Your task to perform on an android device: Add "macbook pro 13 inch" to the cart on newegg Image 0: 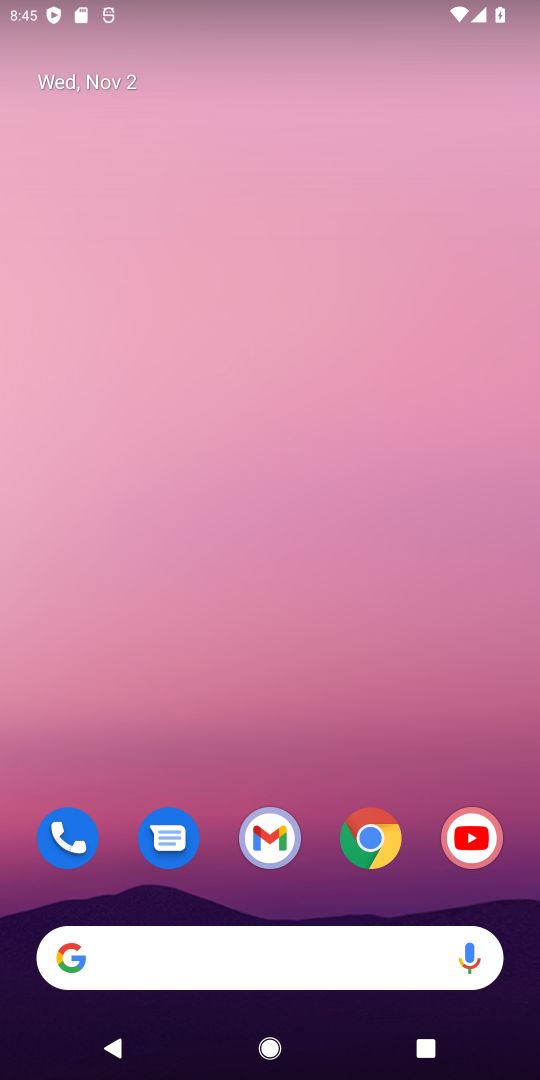
Step 0: click (380, 861)
Your task to perform on an android device: Add "macbook pro 13 inch" to the cart on newegg Image 1: 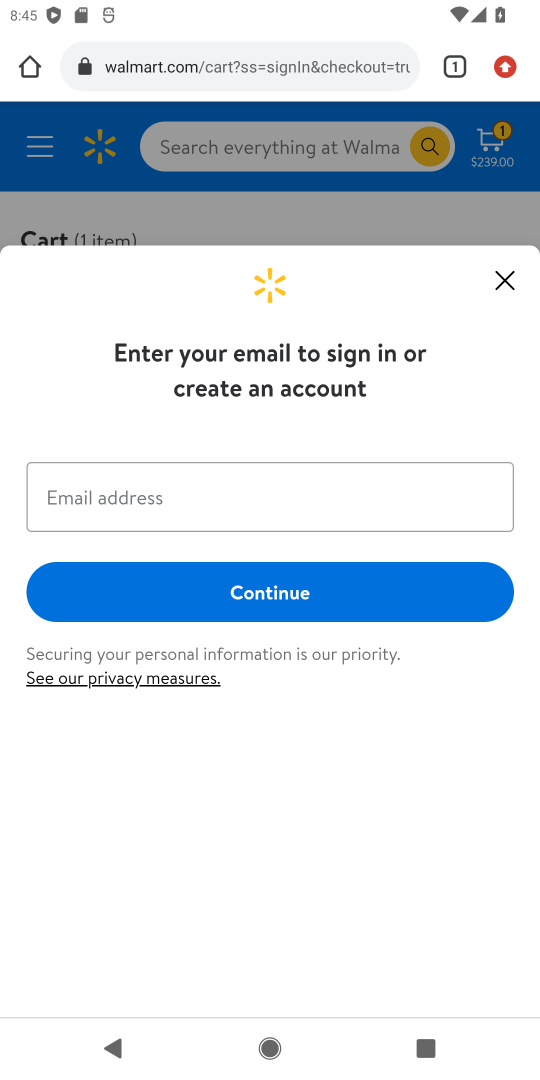
Step 1: click (288, 72)
Your task to perform on an android device: Add "macbook pro 13 inch" to the cart on newegg Image 2: 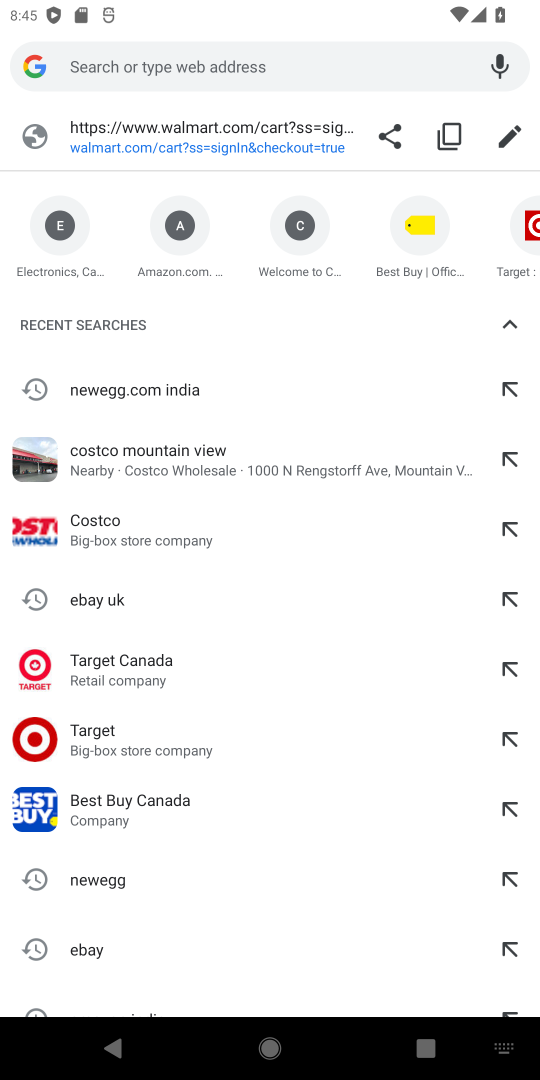
Step 2: type "newegg"
Your task to perform on an android device: Add "macbook pro 13 inch" to the cart on newegg Image 3: 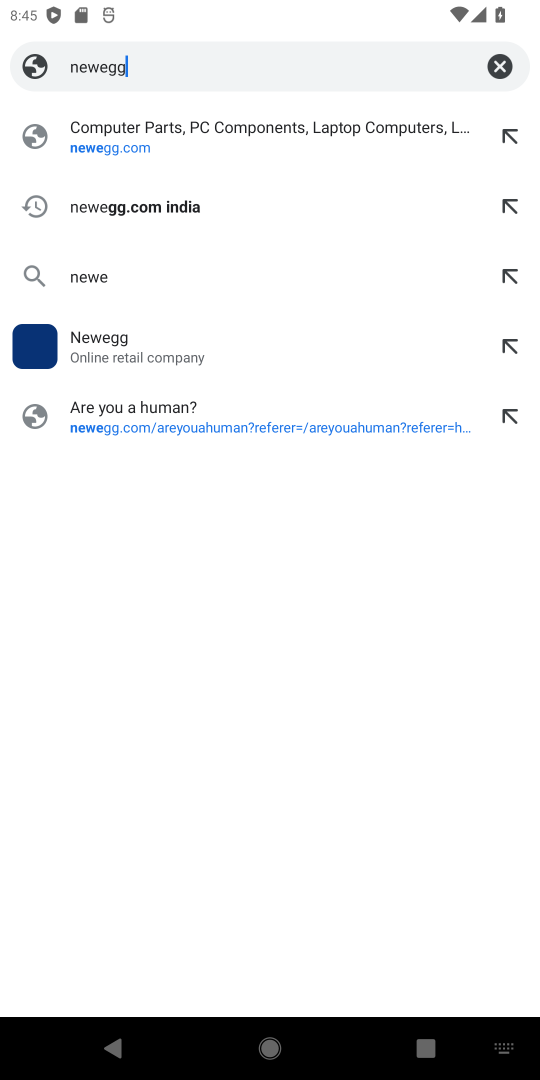
Step 3: type ""
Your task to perform on an android device: Add "macbook pro 13 inch" to the cart on newegg Image 4: 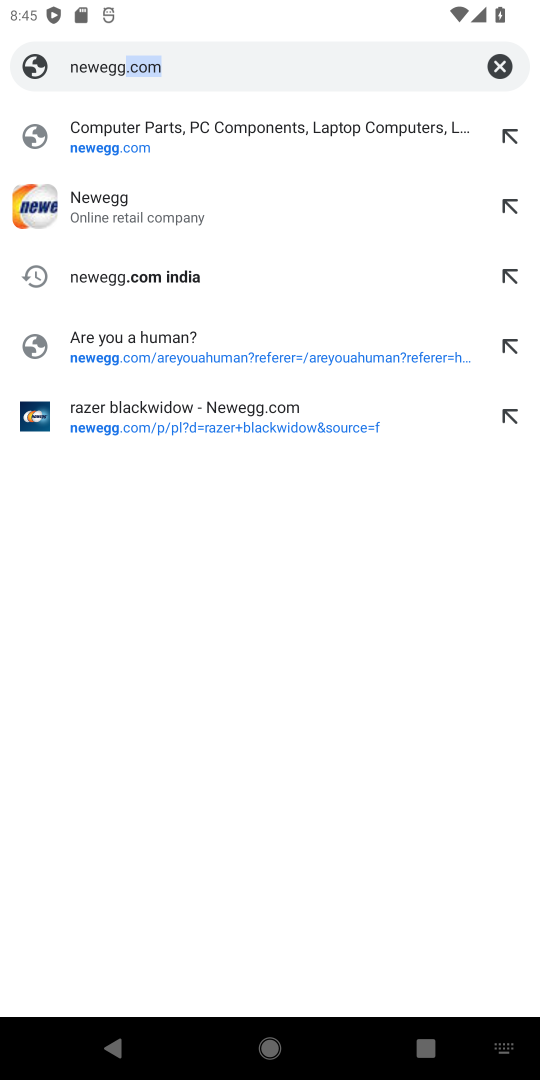
Step 4: press enter
Your task to perform on an android device: Add "macbook pro 13 inch" to the cart on newegg Image 5: 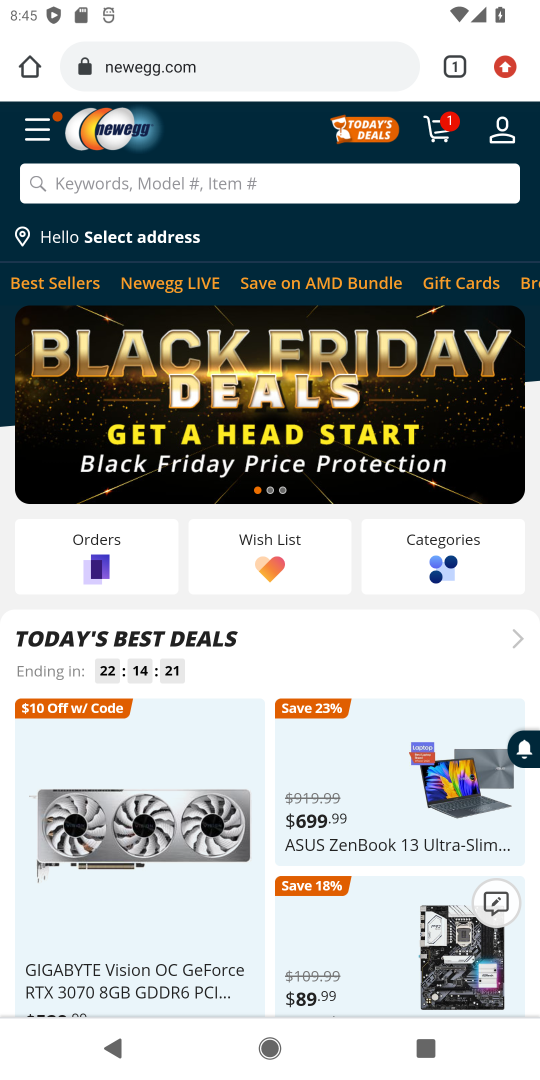
Step 5: click (439, 132)
Your task to perform on an android device: Add "macbook pro 13 inch" to the cart on newegg Image 6: 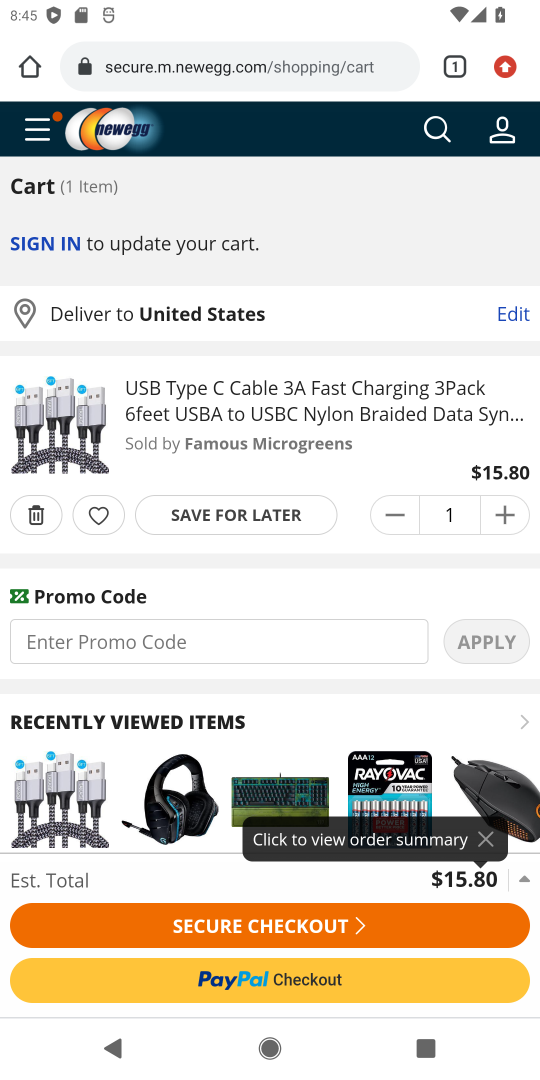
Step 6: click (434, 129)
Your task to perform on an android device: Add "macbook pro 13 inch" to the cart on newegg Image 7: 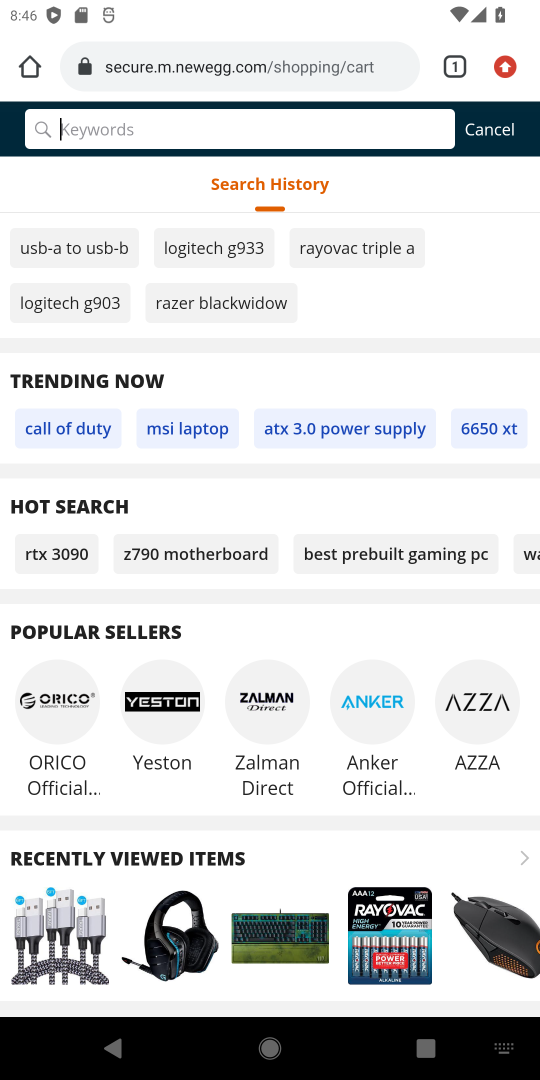
Step 7: type "macbook pro 13 inch"
Your task to perform on an android device: Add "macbook pro 13 inch" to the cart on newegg Image 8: 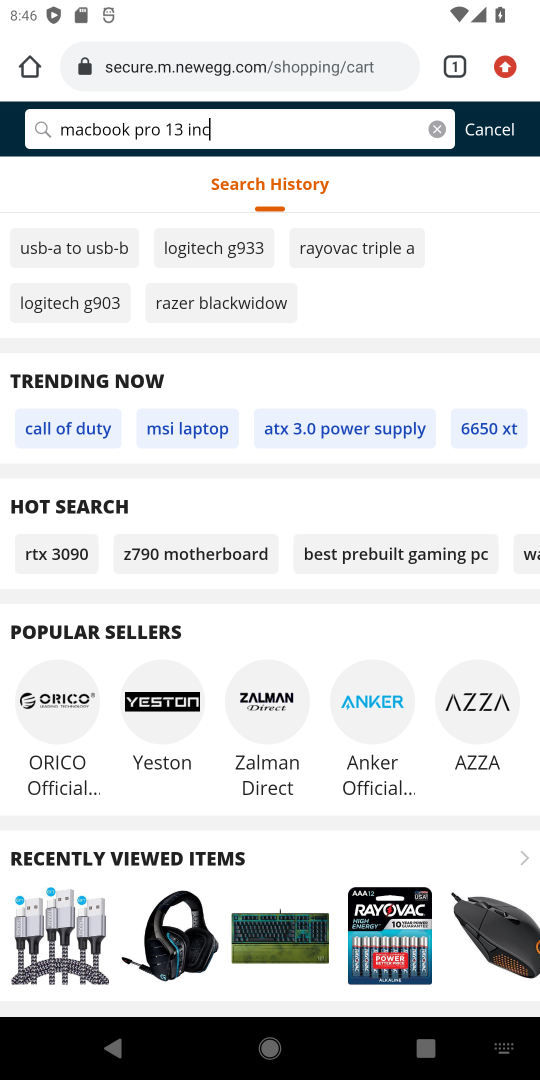
Step 8: type ""
Your task to perform on an android device: Add "macbook pro 13 inch" to the cart on newegg Image 9: 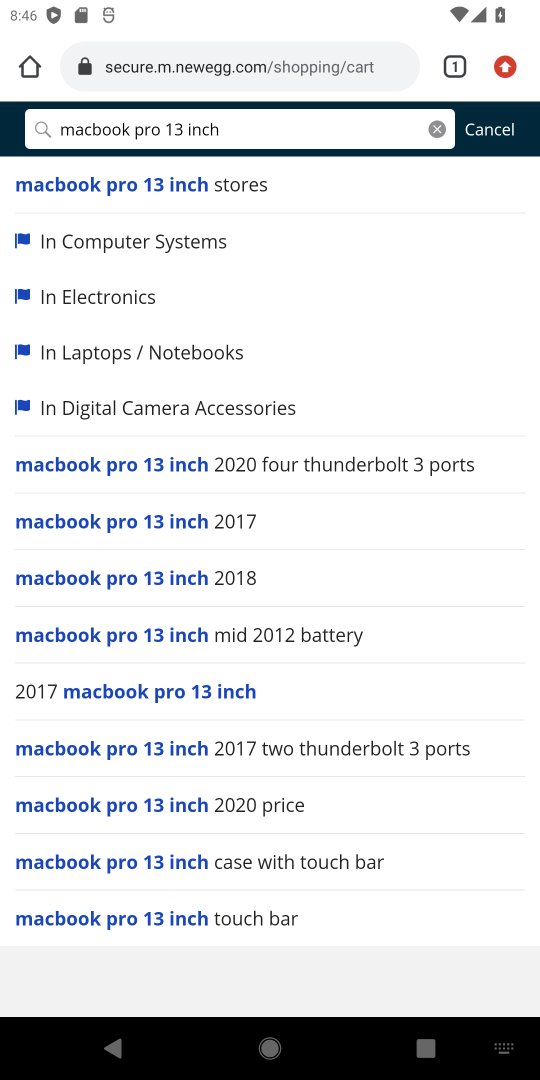
Step 9: press enter
Your task to perform on an android device: Add "macbook pro 13 inch" to the cart on newegg Image 10: 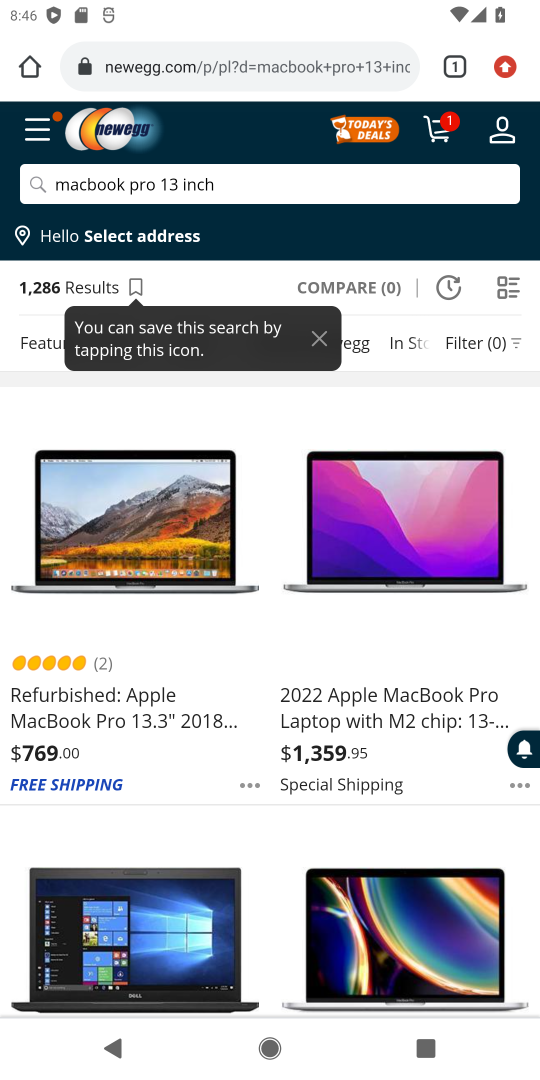
Step 10: click (181, 686)
Your task to perform on an android device: Add "macbook pro 13 inch" to the cart on newegg Image 11: 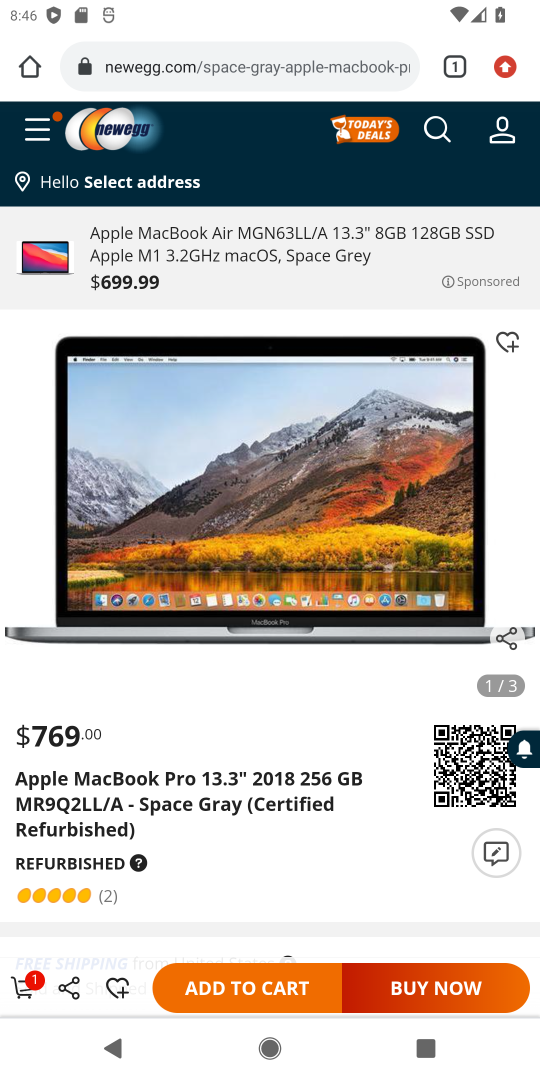
Step 11: click (181, 979)
Your task to perform on an android device: Add "macbook pro 13 inch" to the cart on newegg Image 12: 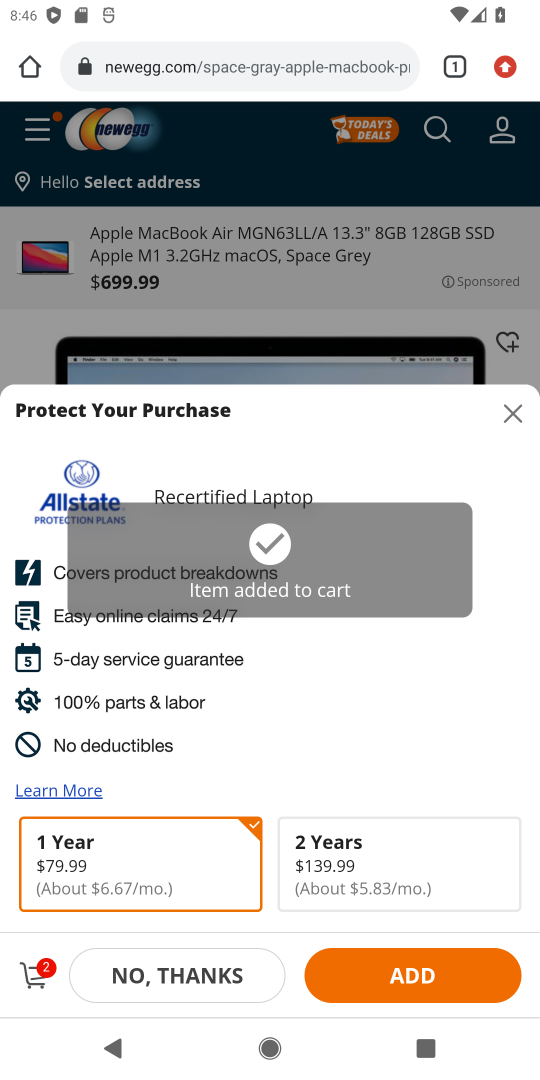
Step 12: click (30, 993)
Your task to perform on an android device: Add "macbook pro 13 inch" to the cart on newegg Image 13: 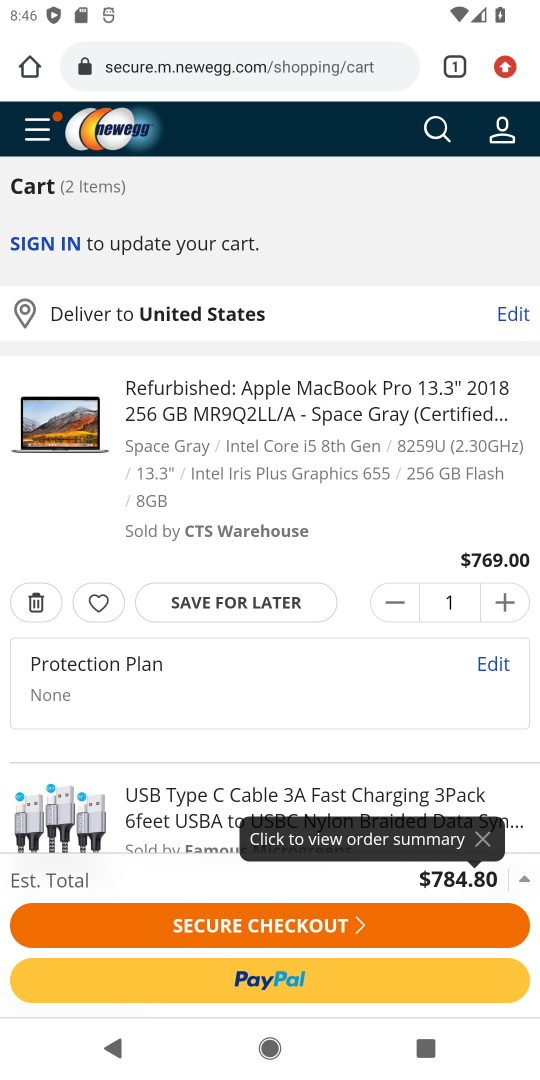
Step 13: task complete